Your task to perform on an android device: find which apps use the phone's location Image 0: 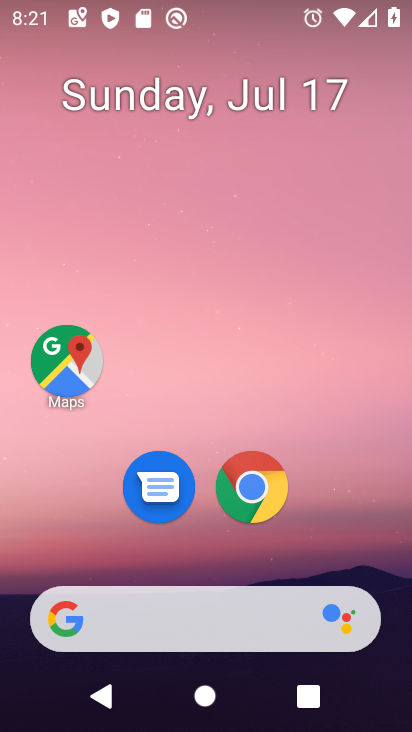
Step 0: drag from (208, 541) to (237, 1)
Your task to perform on an android device: find which apps use the phone's location Image 1: 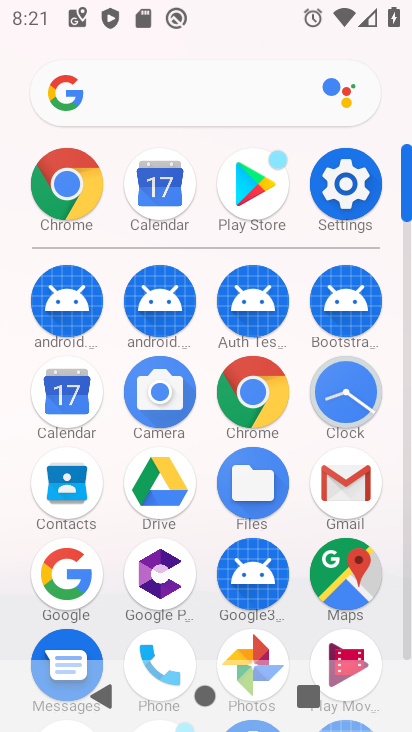
Step 1: click (334, 187)
Your task to perform on an android device: find which apps use the phone's location Image 2: 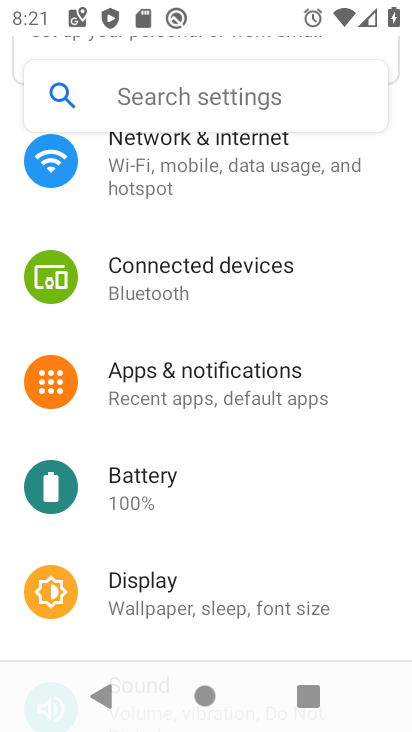
Step 2: drag from (173, 561) to (235, 58)
Your task to perform on an android device: find which apps use the phone's location Image 3: 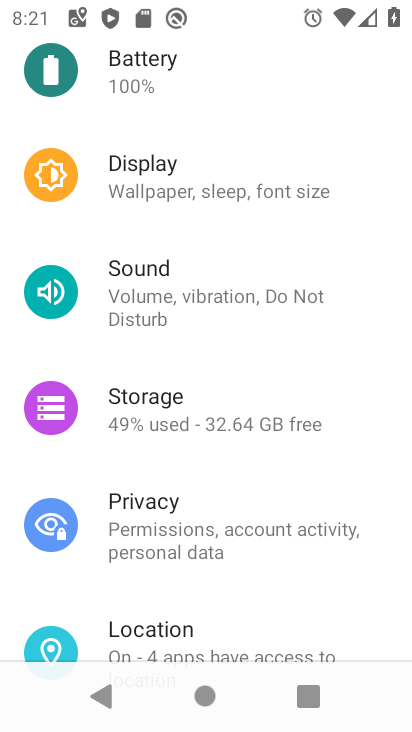
Step 3: drag from (154, 588) to (218, 168)
Your task to perform on an android device: find which apps use the phone's location Image 4: 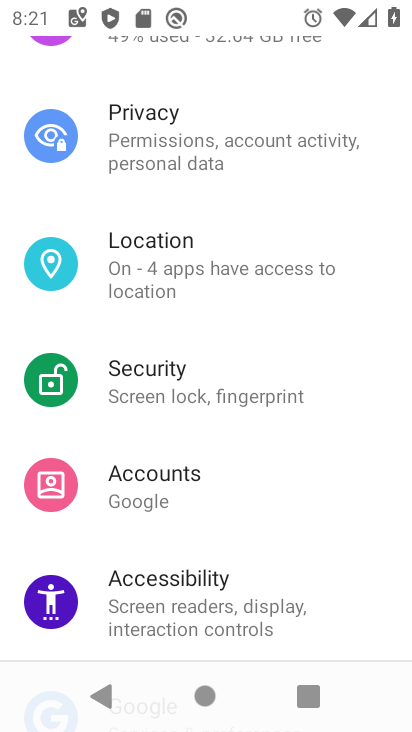
Step 4: click (163, 249)
Your task to perform on an android device: find which apps use the phone's location Image 5: 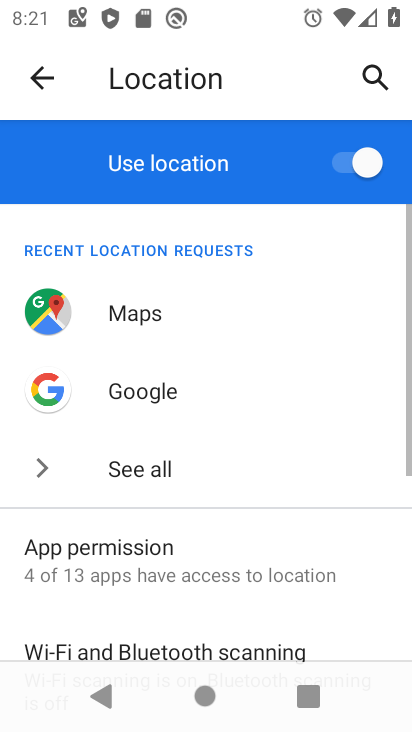
Step 5: drag from (169, 599) to (249, 185)
Your task to perform on an android device: find which apps use the phone's location Image 6: 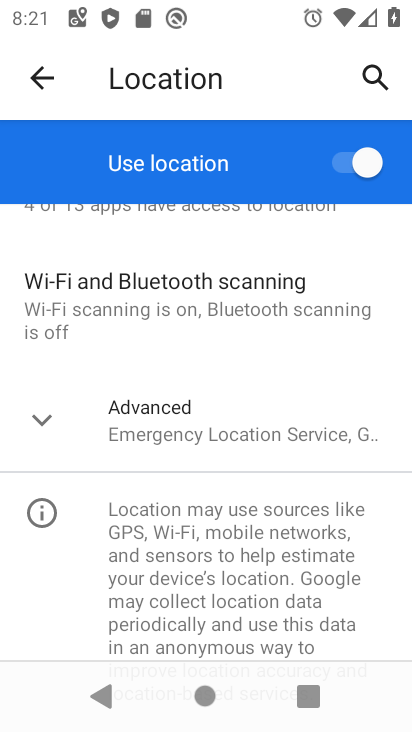
Step 6: drag from (195, 253) to (141, 711)
Your task to perform on an android device: find which apps use the phone's location Image 7: 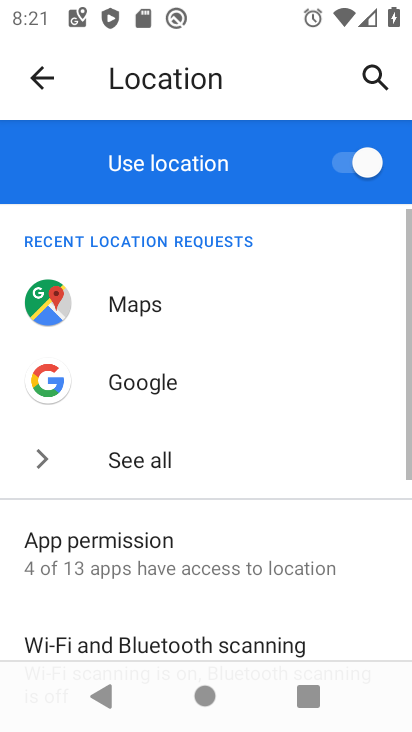
Step 7: click (85, 552)
Your task to perform on an android device: find which apps use the phone's location Image 8: 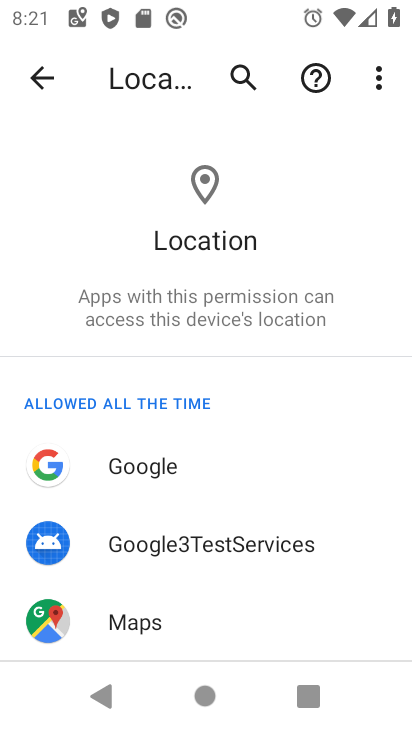
Step 8: task complete